Your task to perform on an android device: move an email to a new category in the gmail app Image 0: 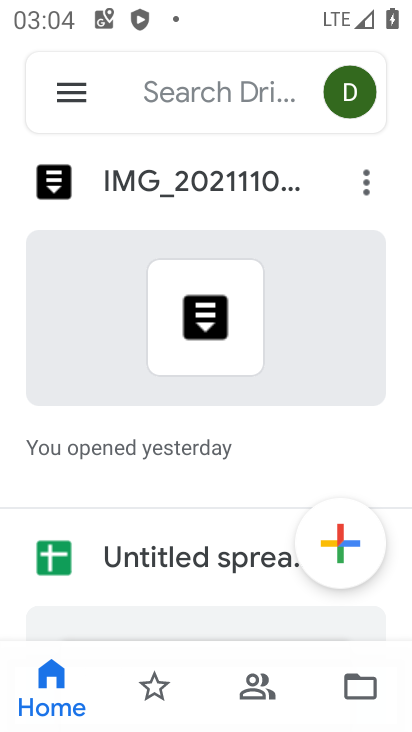
Step 0: press home button
Your task to perform on an android device: move an email to a new category in the gmail app Image 1: 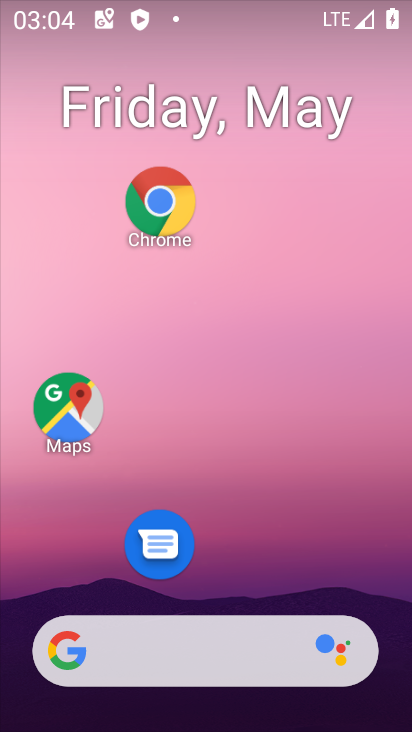
Step 1: drag from (408, 557) to (373, 241)
Your task to perform on an android device: move an email to a new category in the gmail app Image 2: 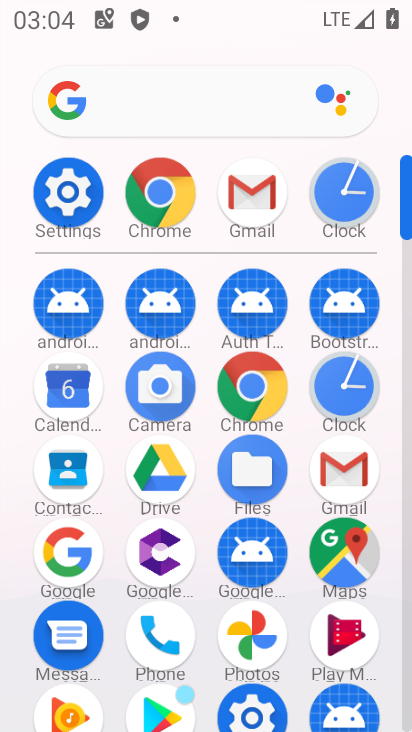
Step 2: click (333, 473)
Your task to perform on an android device: move an email to a new category in the gmail app Image 3: 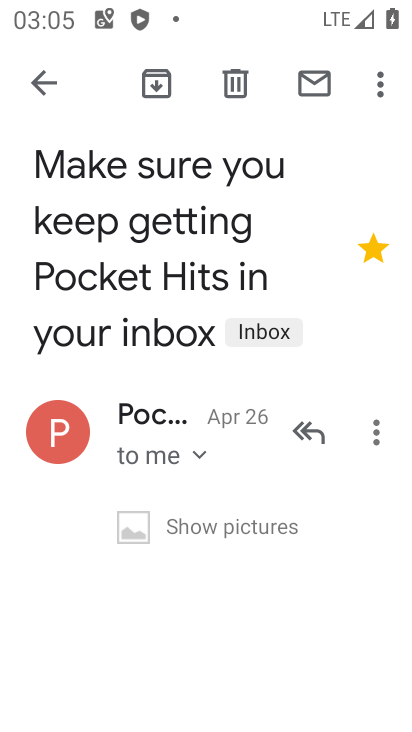
Step 3: click (44, 98)
Your task to perform on an android device: move an email to a new category in the gmail app Image 4: 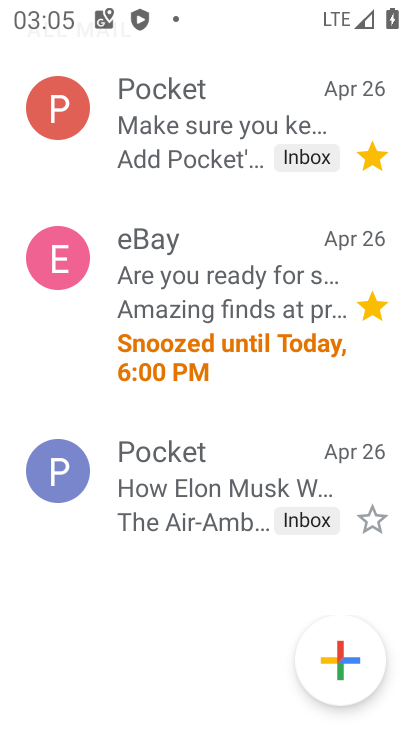
Step 4: drag from (139, 322) to (168, 716)
Your task to perform on an android device: move an email to a new category in the gmail app Image 5: 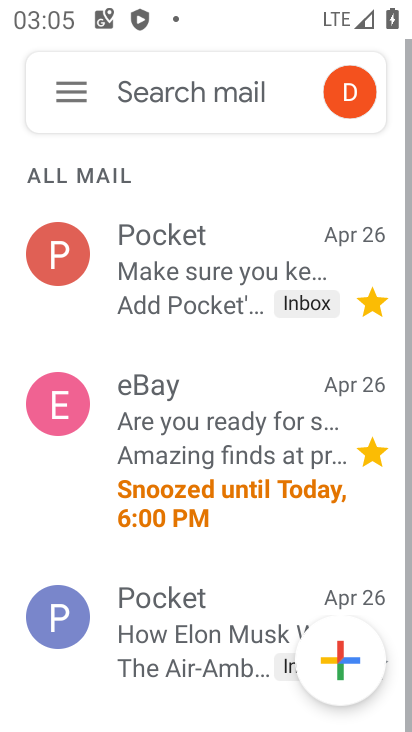
Step 5: click (72, 112)
Your task to perform on an android device: move an email to a new category in the gmail app Image 6: 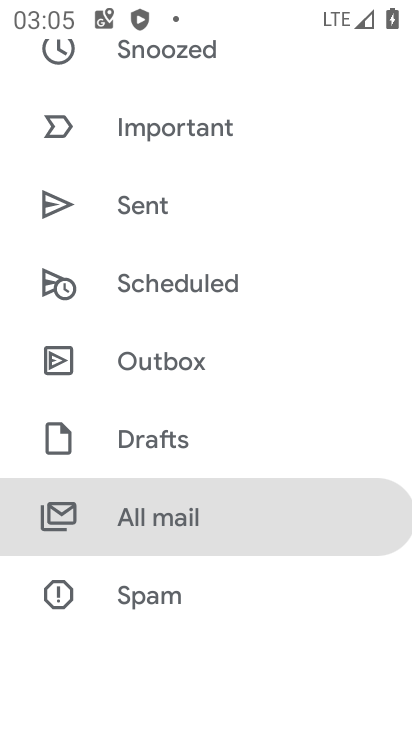
Step 6: drag from (191, 572) to (223, 269)
Your task to perform on an android device: move an email to a new category in the gmail app Image 7: 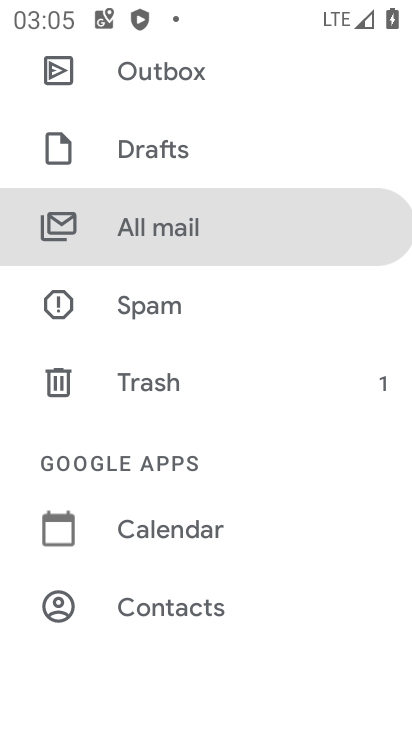
Step 7: click (228, 232)
Your task to perform on an android device: move an email to a new category in the gmail app Image 8: 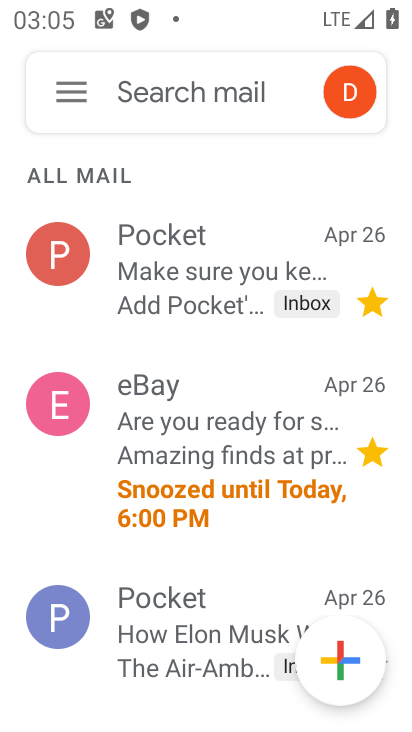
Step 8: click (254, 622)
Your task to perform on an android device: move an email to a new category in the gmail app Image 9: 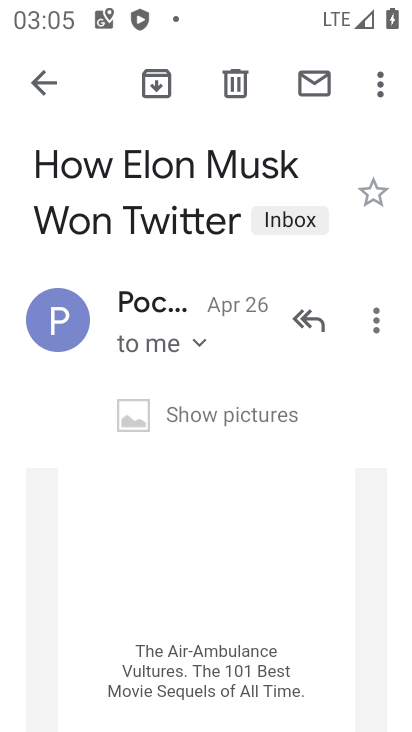
Step 9: click (378, 86)
Your task to perform on an android device: move an email to a new category in the gmail app Image 10: 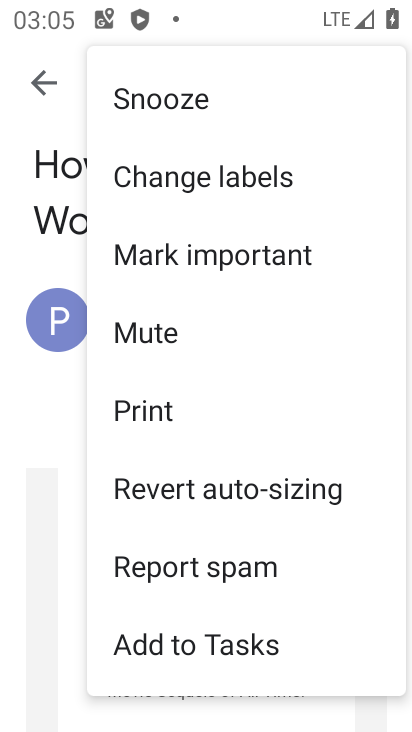
Step 10: click (254, 194)
Your task to perform on an android device: move an email to a new category in the gmail app Image 11: 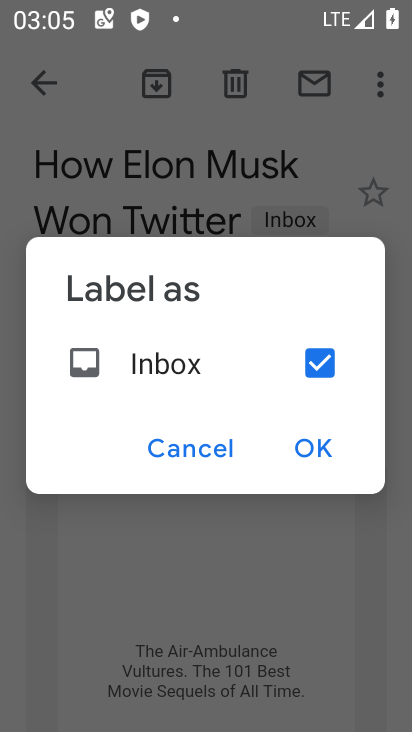
Step 11: click (185, 444)
Your task to perform on an android device: move an email to a new category in the gmail app Image 12: 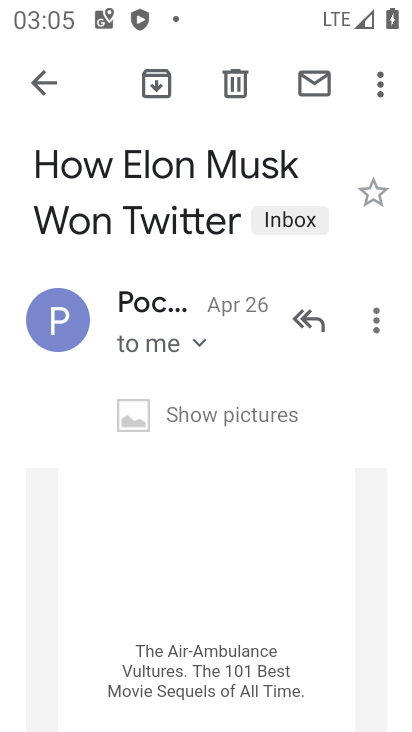
Step 12: click (372, 103)
Your task to perform on an android device: move an email to a new category in the gmail app Image 13: 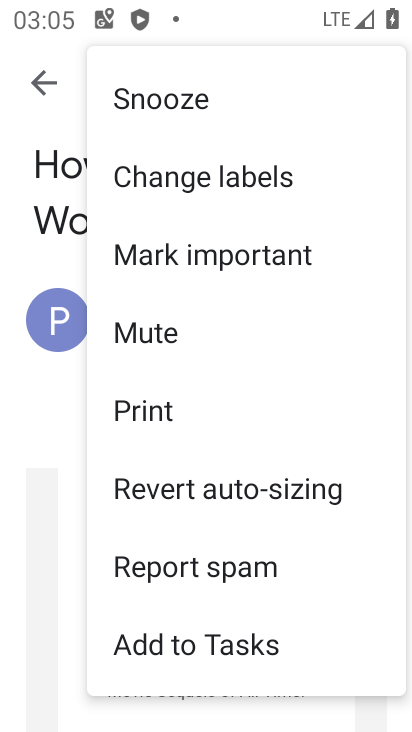
Step 13: drag from (271, 403) to (301, 211)
Your task to perform on an android device: move an email to a new category in the gmail app Image 14: 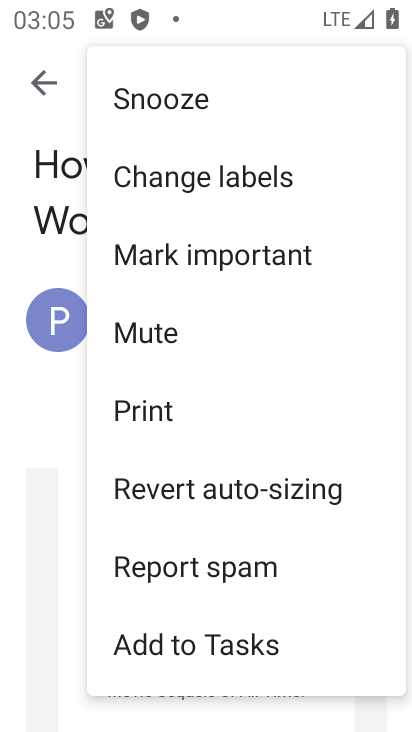
Step 14: drag from (305, 197) to (280, 453)
Your task to perform on an android device: move an email to a new category in the gmail app Image 15: 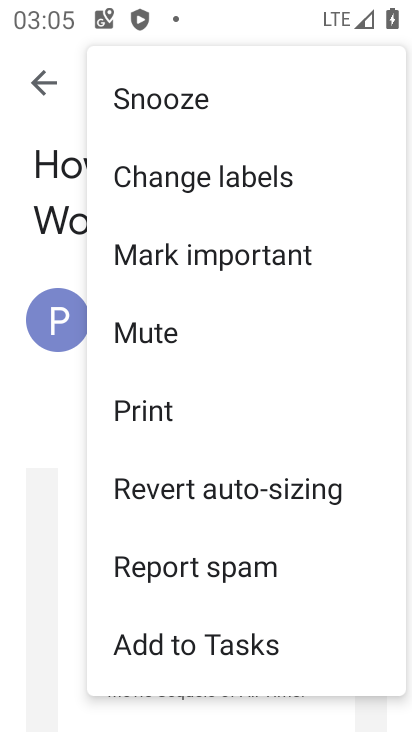
Step 15: click (226, 104)
Your task to perform on an android device: move an email to a new category in the gmail app Image 16: 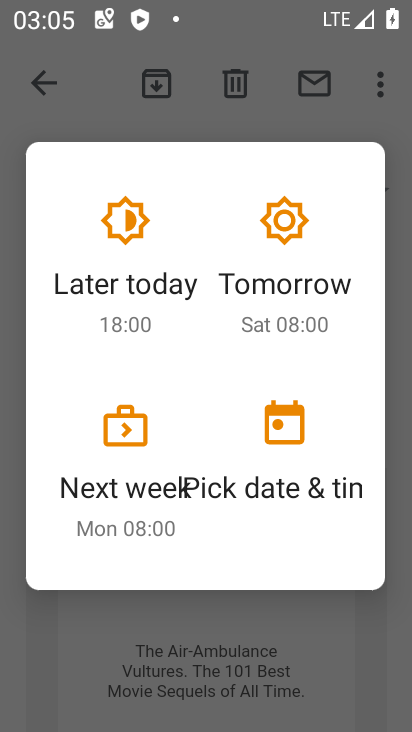
Step 16: click (181, 292)
Your task to perform on an android device: move an email to a new category in the gmail app Image 17: 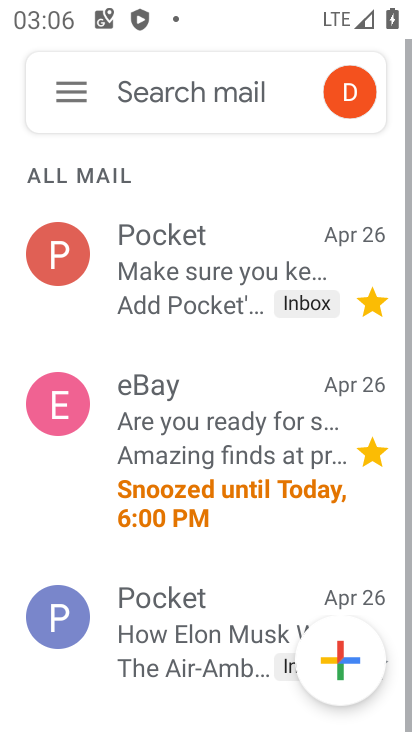
Step 17: task complete